Your task to perform on an android device: Open accessibility settings Image 0: 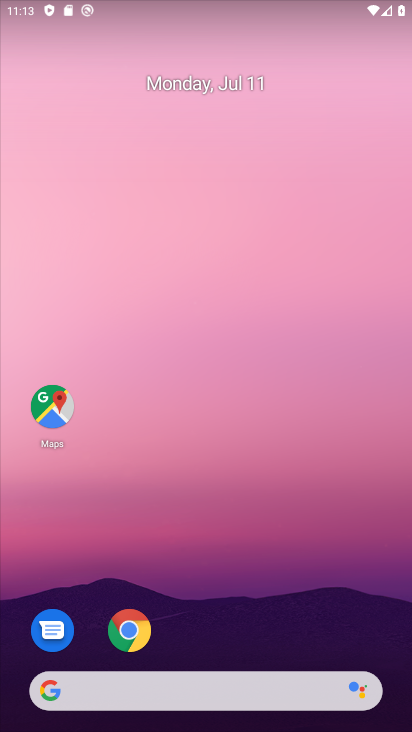
Step 0: drag from (196, 634) to (231, 109)
Your task to perform on an android device: Open accessibility settings Image 1: 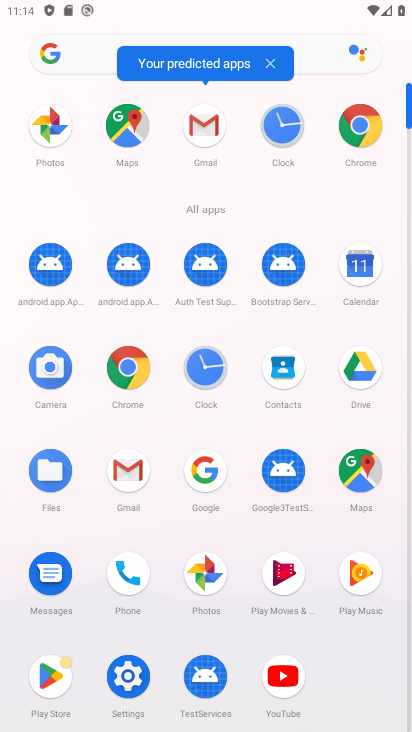
Step 1: click (131, 678)
Your task to perform on an android device: Open accessibility settings Image 2: 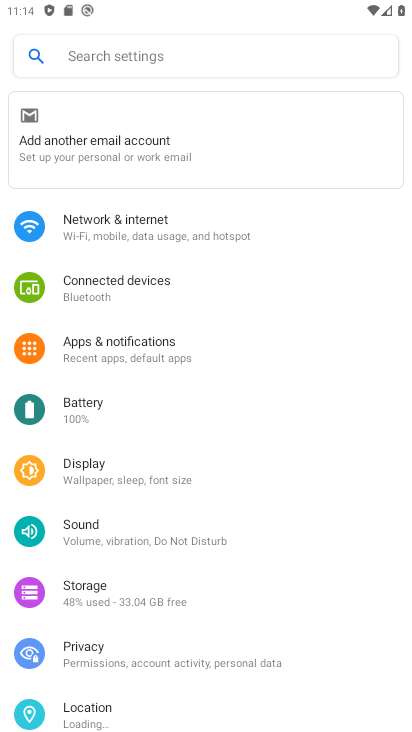
Step 2: drag from (179, 615) to (232, 213)
Your task to perform on an android device: Open accessibility settings Image 3: 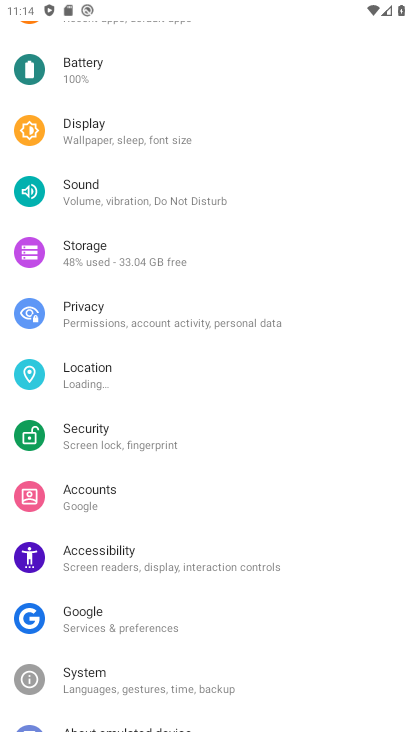
Step 3: click (106, 554)
Your task to perform on an android device: Open accessibility settings Image 4: 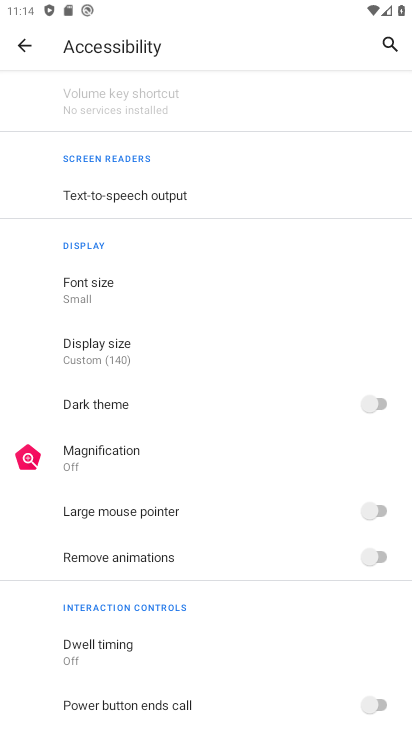
Step 4: task complete